Your task to perform on an android device: What is the recent news? Image 0: 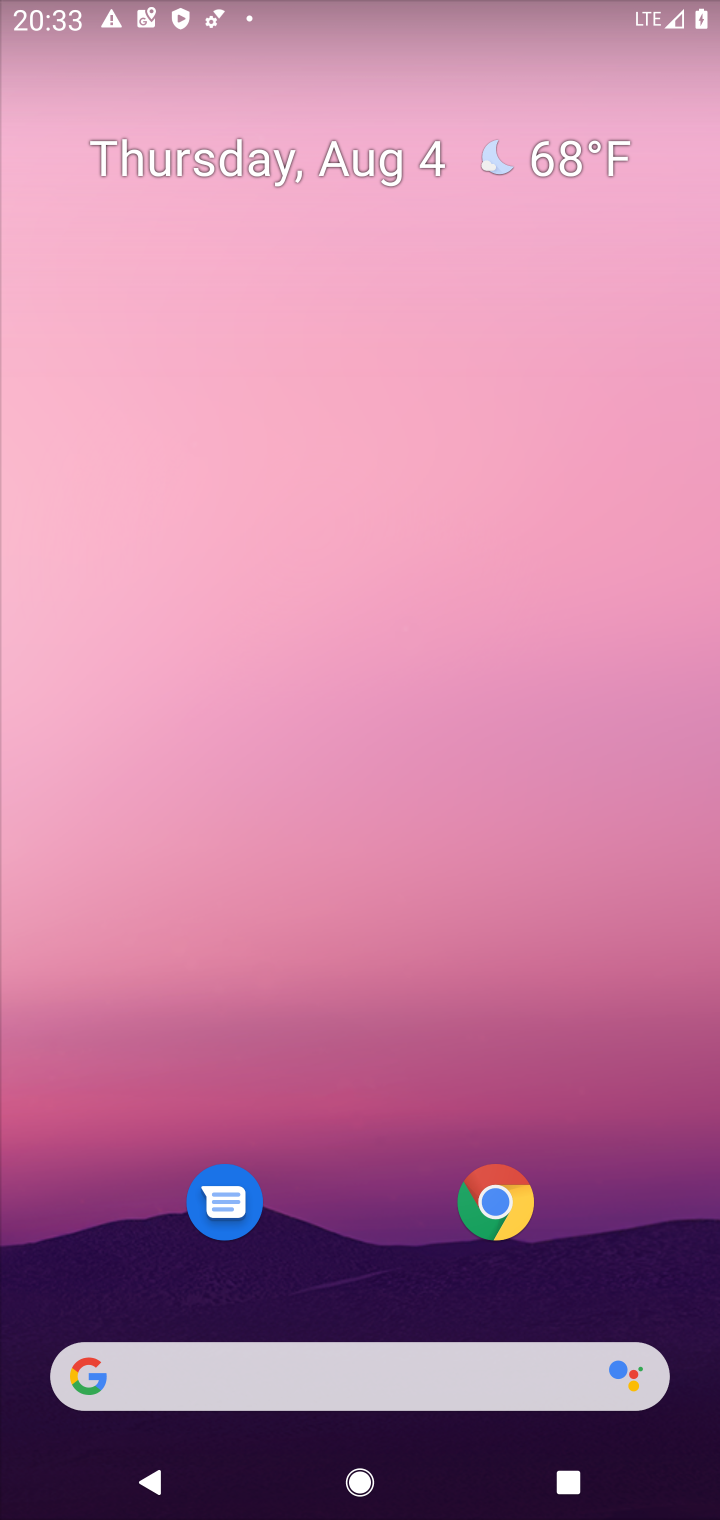
Step 0: drag from (315, 987) to (315, 287)
Your task to perform on an android device: What is the recent news? Image 1: 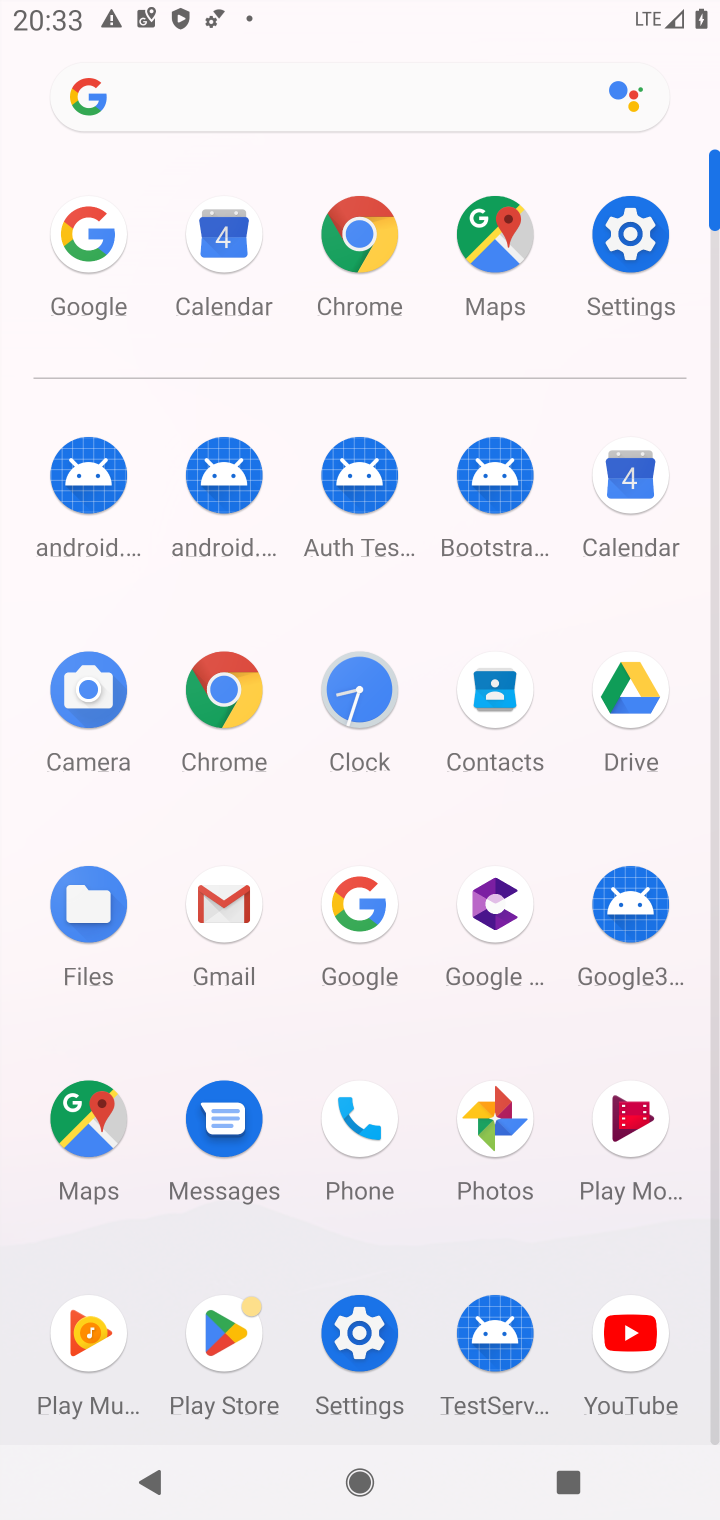
Step 1: click (374, 913)
Your task to perform on an android device: What is the recent news? Image 2: 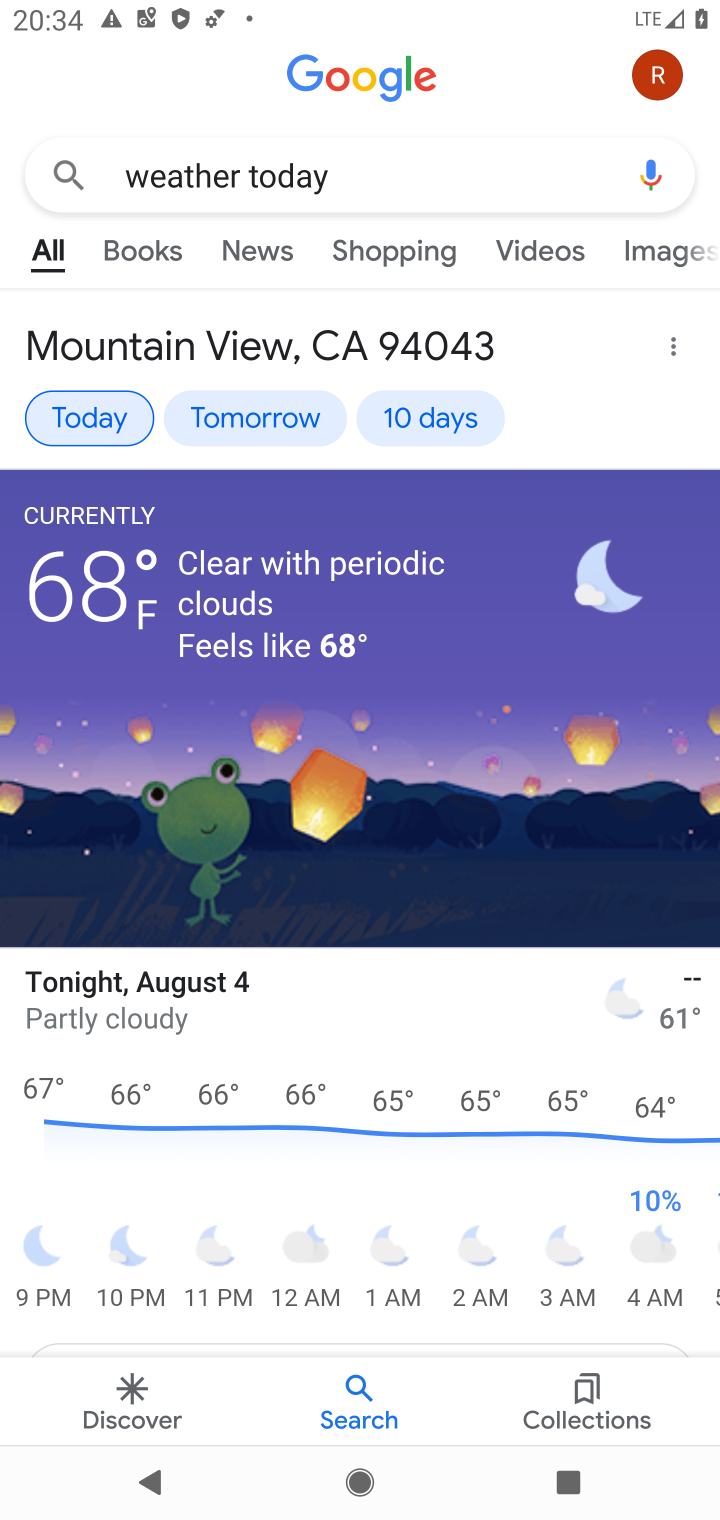
Step 2: click (449, 189)
Your task to perform on an android device: What is the recent news? Image 3: 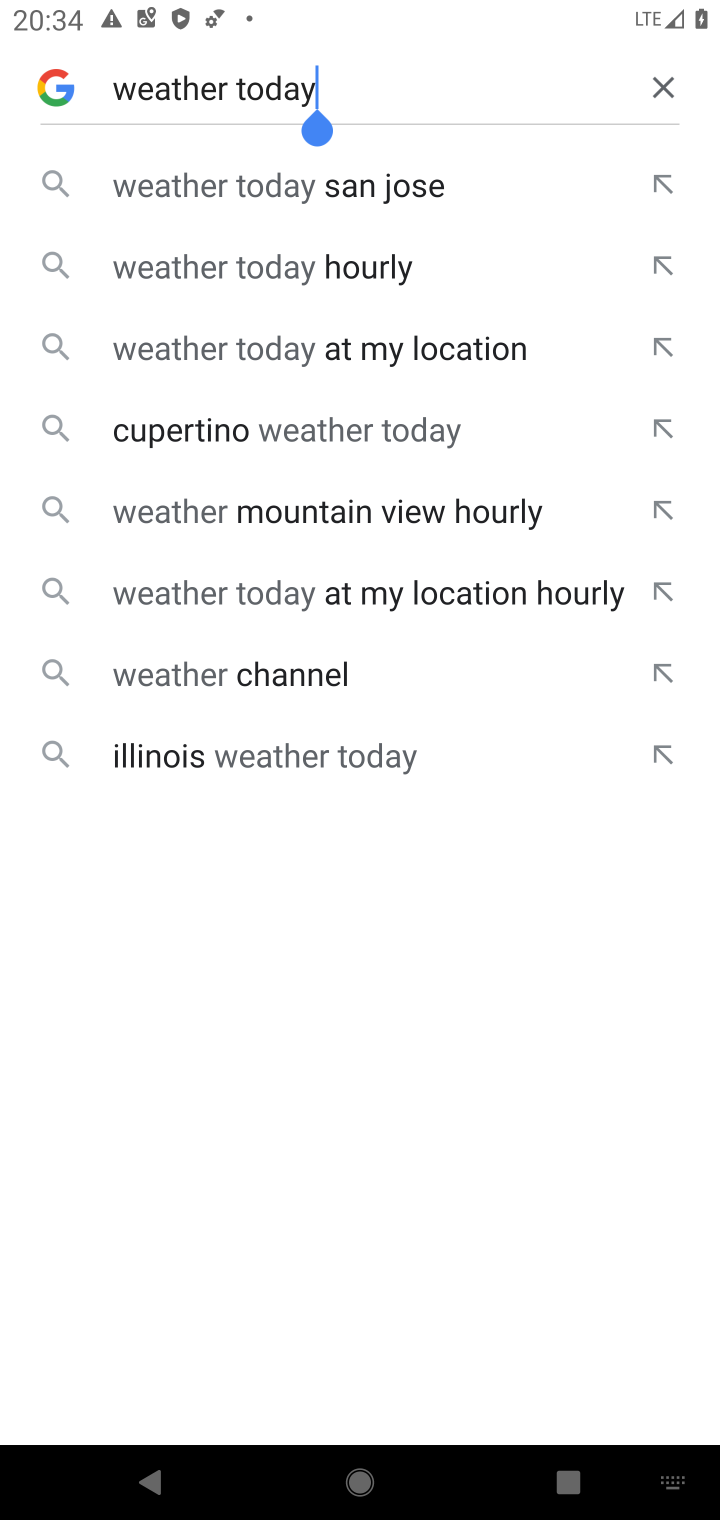
Step 3: click (672, 92)
Your task to perform on an android device: What is the recent news? Image 4: 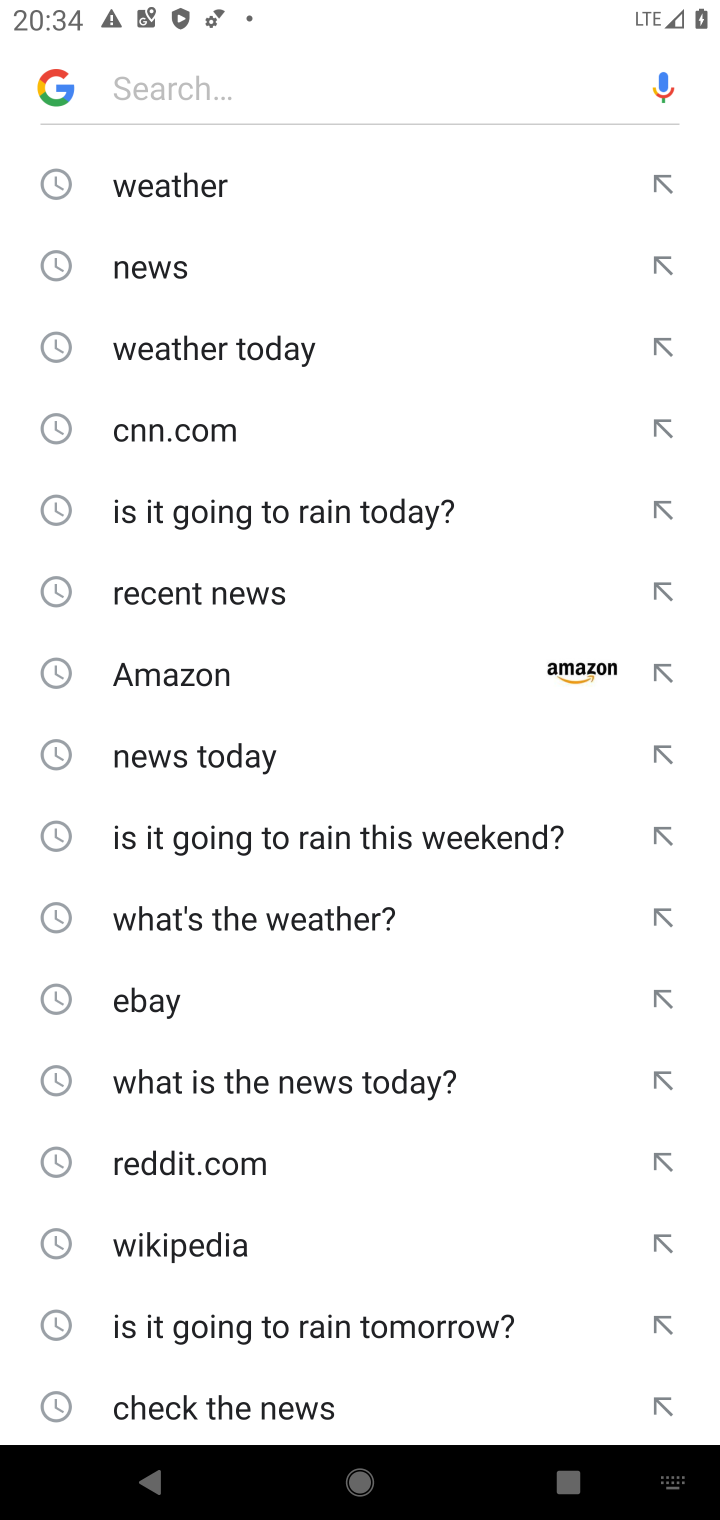
Step 4: click (217, 274)
Your task to perform on an android device: What is the recent news? Image 5: 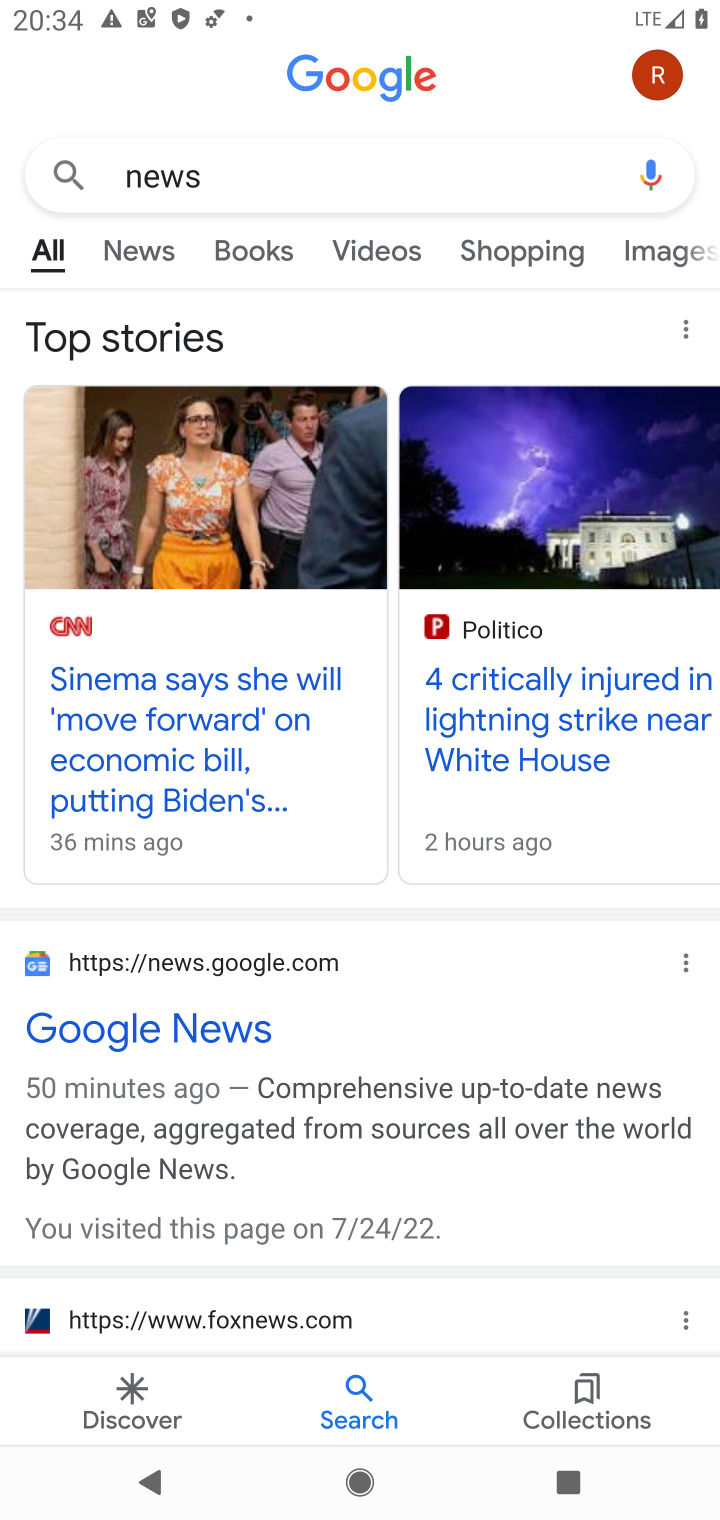
Step 5: click (163, 256)
Your task to perform on an android device: What is the recent news? Image 6: 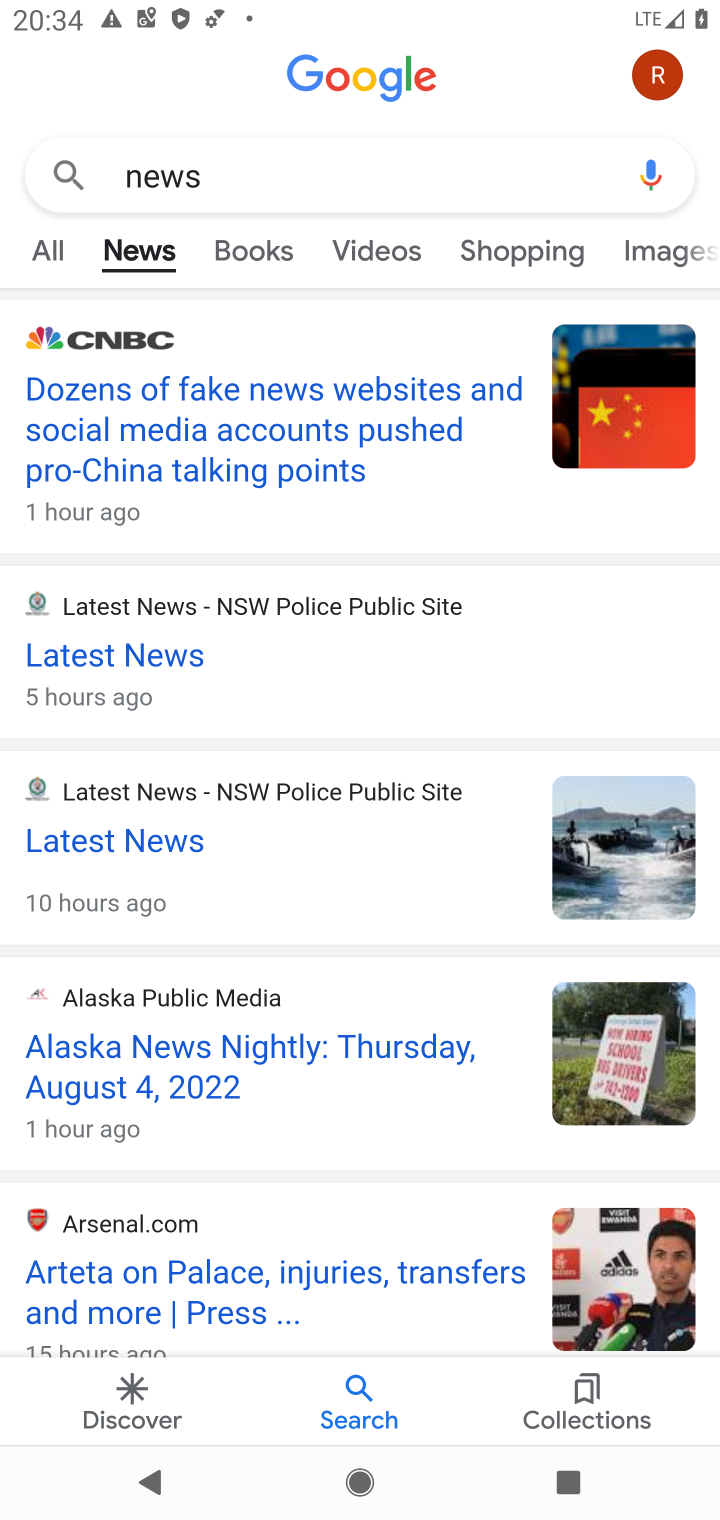
Step 6: task complete